Your task to perform on an android device: Is it going to rain this weekend? Image 0: 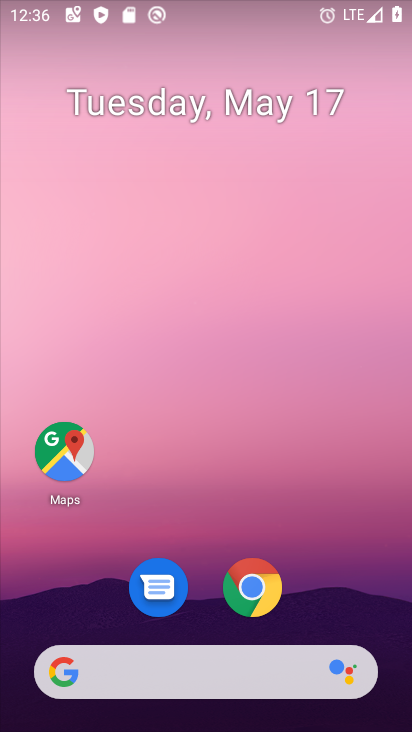
Step 0: drag from (377, 633) to (295, 73)
Your task to perform on an android device: Is it going to rain this weekend? Image 1: 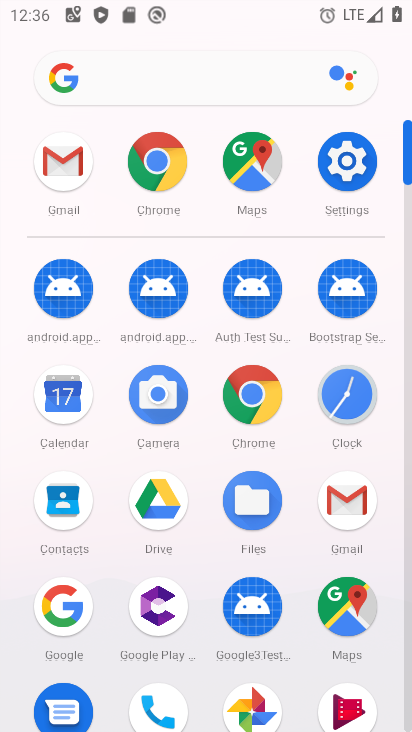
Step 1: click (83, 597)
Your task to perform on an android device: Is it going to rain this weekend? Image 2: 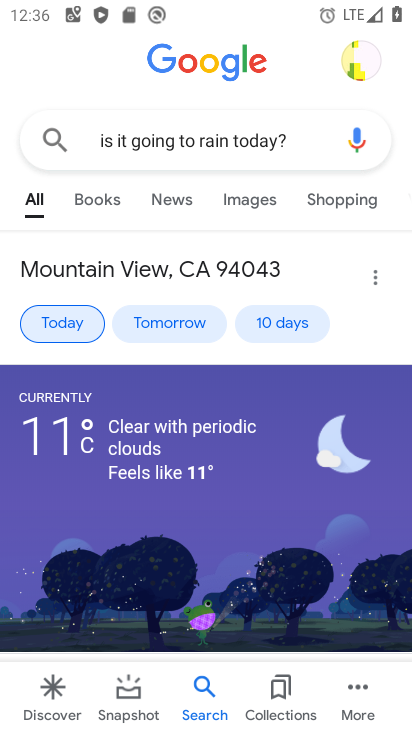
Step 2: press back button
Your task to perform on an android device: Is it going to rain this weekend? Image 3: 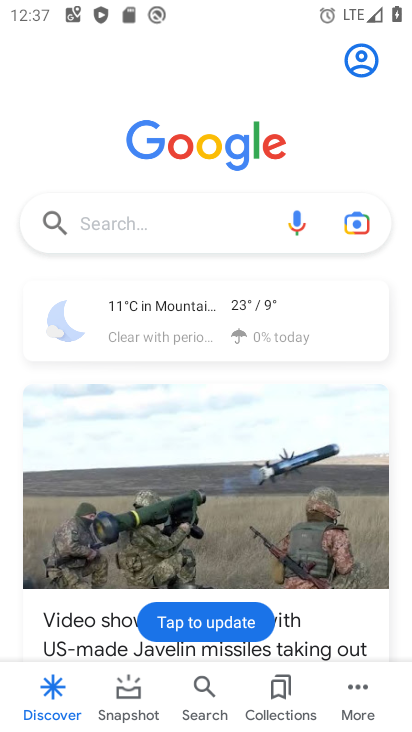
Step 3: click (200, 222)
Your task to perform on an android device: Is it going to rain this weekend? Image 4: 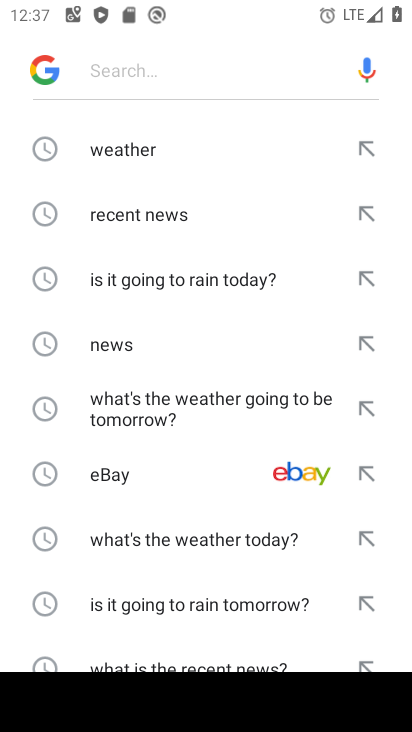
Step 4: drag from (212, 594) to (244, 218)
Your task to perform on an android device: Is it going to rain this weekend? Image 5: 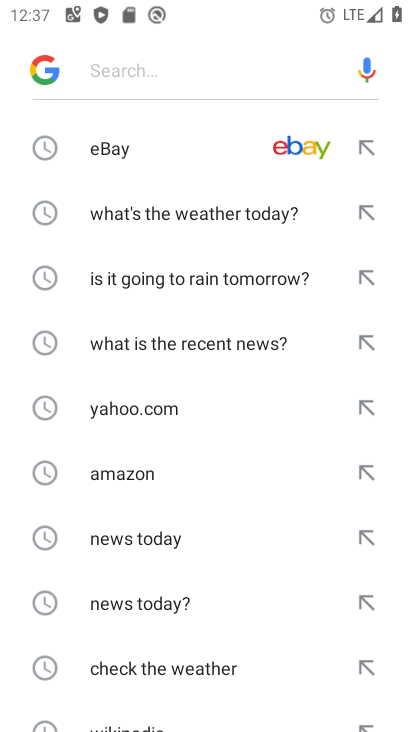
Step 5: drag from (230, 661) to (257, 250)
Your task to perform on an android device: Is it going to rain this weekend? Image 6: 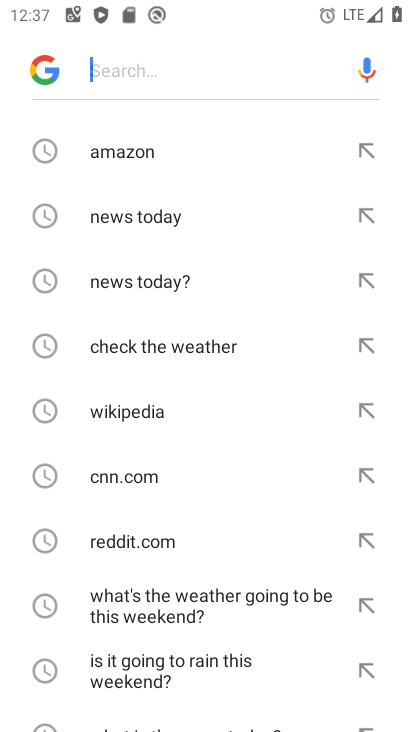
Step 6: click (221, 660)
Your task to perform on an android device: Is it going to rain this weekend? Image 7: 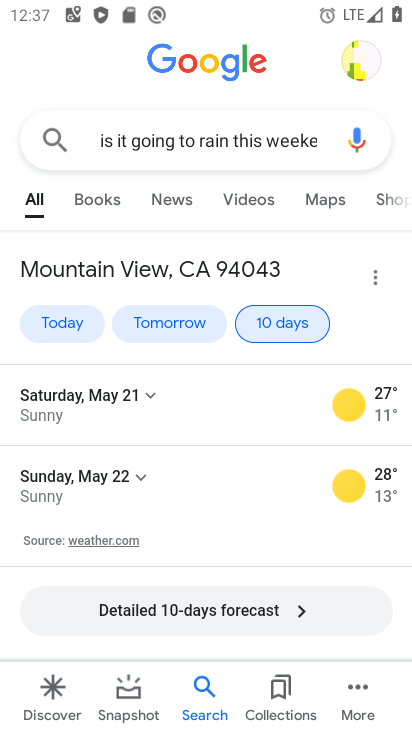
Step 7: task complete